Your task to perform on an android device: Open the web browser Image 0: 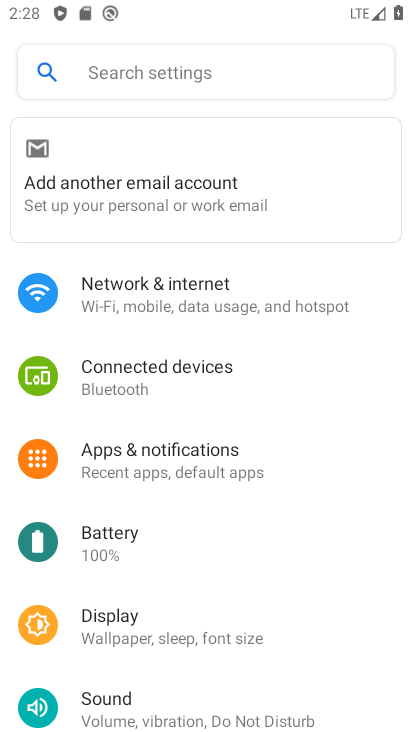
Step 0: press home button
Your task to perform on an android device: Open the web browser Image 1: 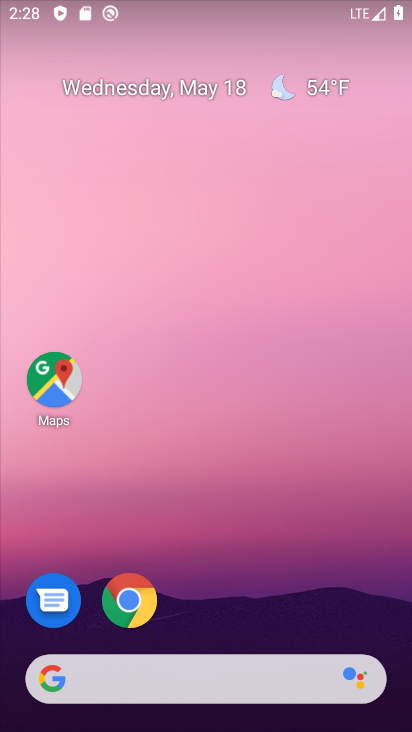
Step 1: click (120, 611)
Your task to perform on an android device: Open the web browser Image 2: 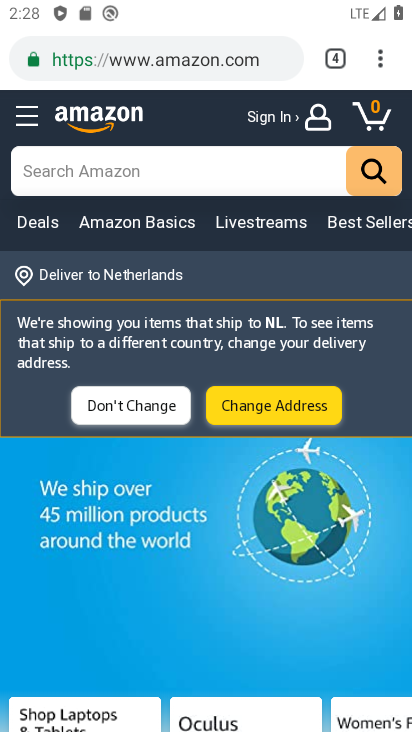
Step 2: task complete